Your task to perform on an android device: Search for vegetarian restaurants on Maps Image 0: 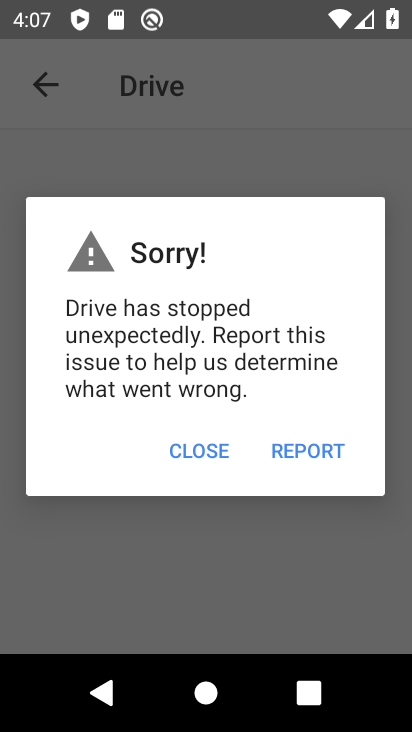
Step 0: press back button
Your task to perform on an android device: Search for vegetarian restaurants on Maps Image 1: 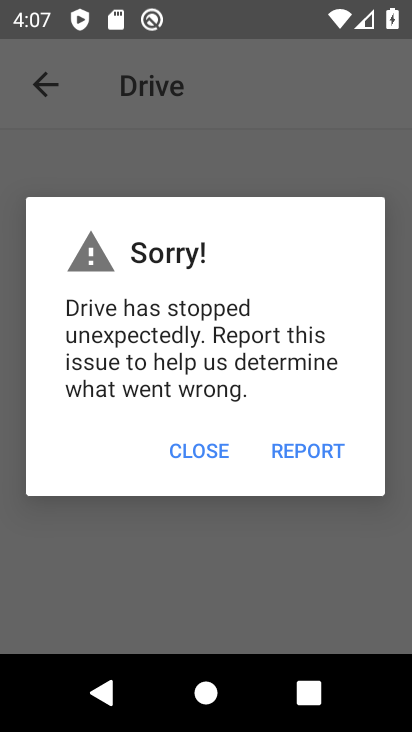
Step 1: click (215, 460)
Your task to perform on an android device: Search for vegetarian restaurants on Maps Image 2: 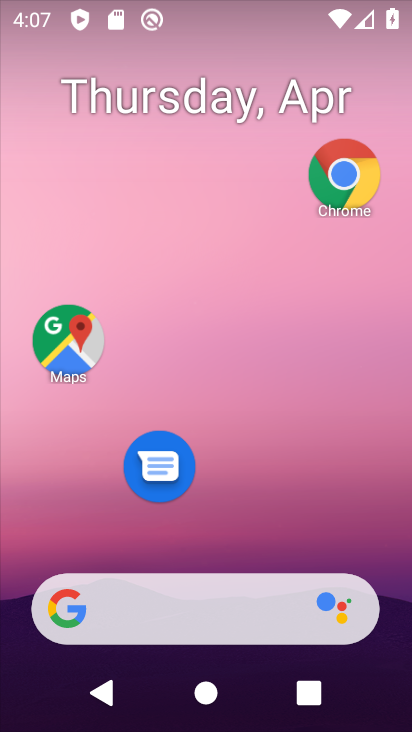
Step 2: drag from (186, 568) to (284, 100)
Your task to perform on an android device: Search for vegetarian restaurants on Maps Image 3: 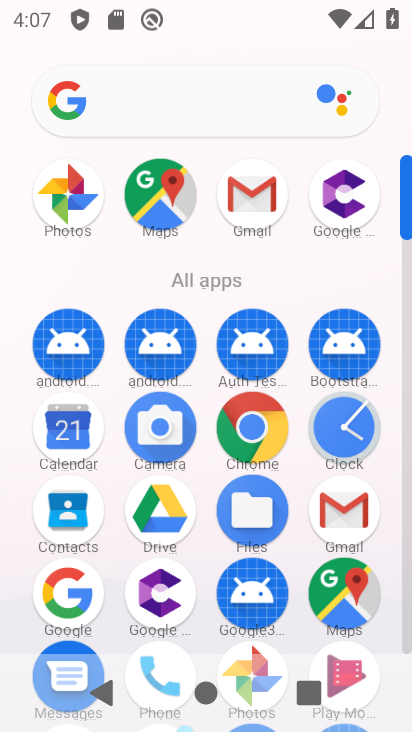
Step 3: click (177, 212)
Your task to perform on an android device: Search for vegetarian restaurants on Maps Image 4: 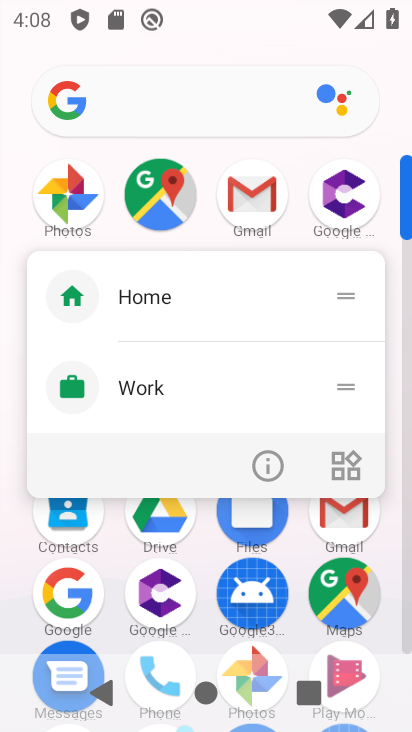
Step 4: click (169, 212)
Your task to perform on an android device: Search for vegetarian restaurants on Maps Image 5: 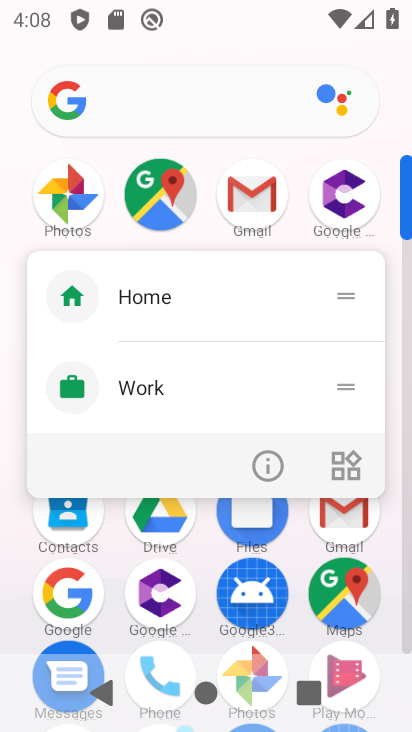
Step 5: click (159, 218)
Your task to perform on an android device: Search for vegetarian restaurants on Maps Image 6: 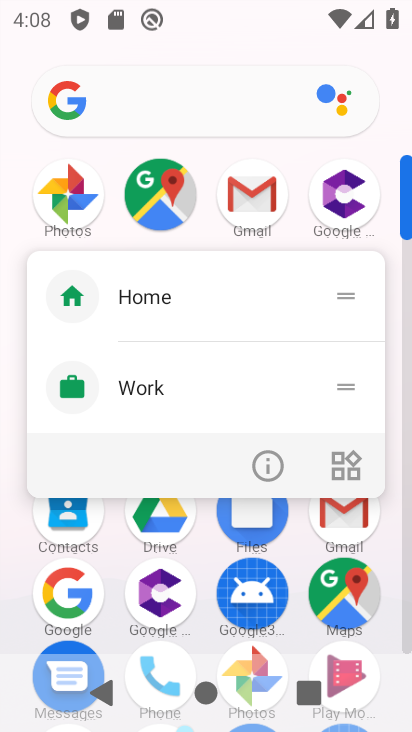
Step 6: click (159, 222)
Your task to perform on an android device: Search for vegetarian restaurants on Maps Image 7: 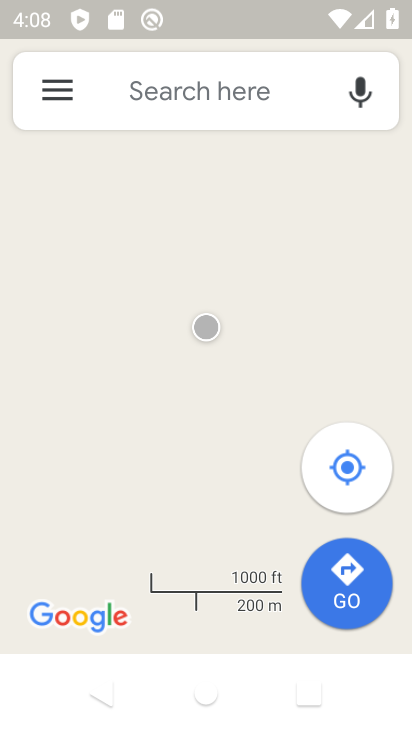
Step 7: click (230, 109)
Your task to perform on an android device: Search for vegetarian restaurants on Maps Image 8: 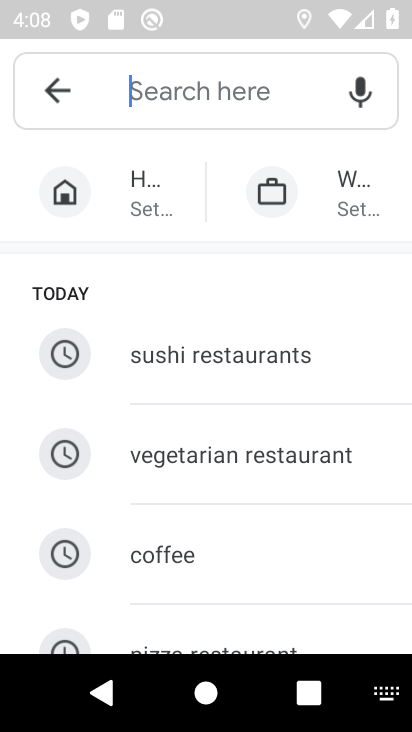
Step 8: type "vegetarian restaurants"
Your task to perform on an android device: Search for vegetarian restaurants on Maps Image 9: 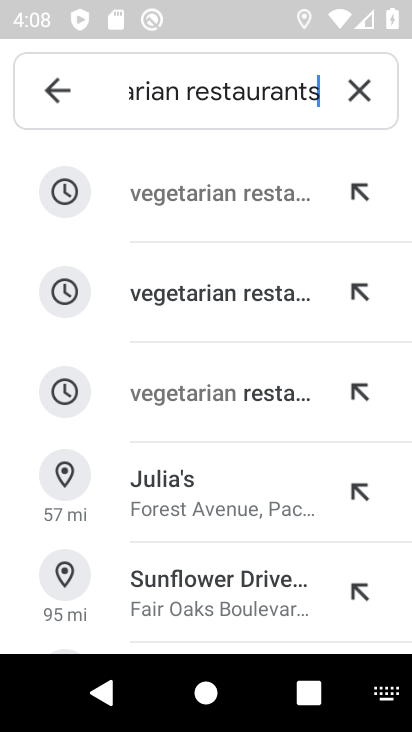
Step 9: click (260, 219)
Your task to perform on an android device: Search for vegetarian restaurants on Maps Image 10: 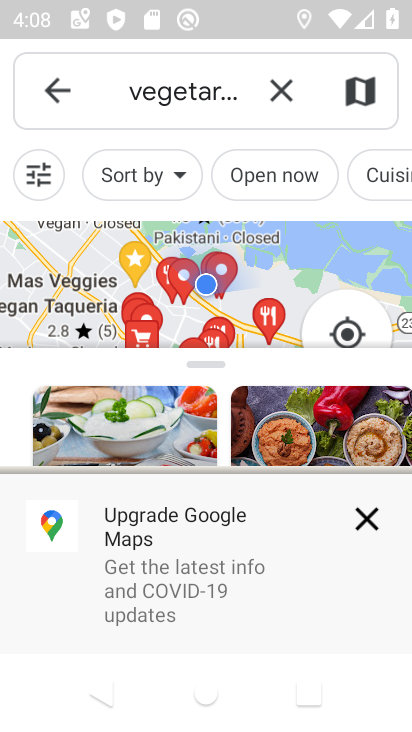
Step 10: click (365, 519)
Your task to perform on an android device: Search for vegetarian restaurants on Maps Image 11: 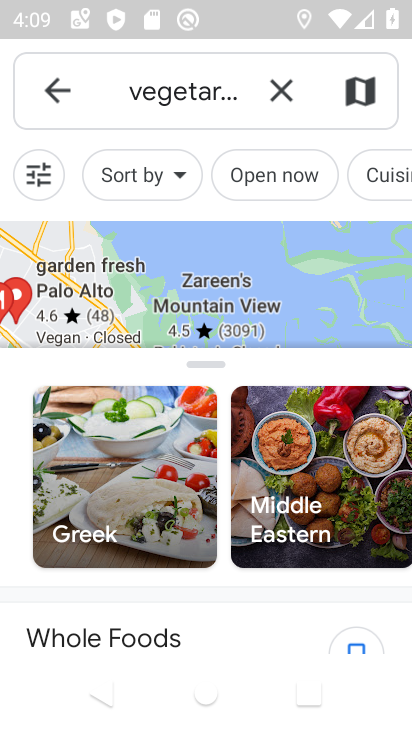
Step 11: task complete